Your task to perform on an android device: What is the news today? Image 0: 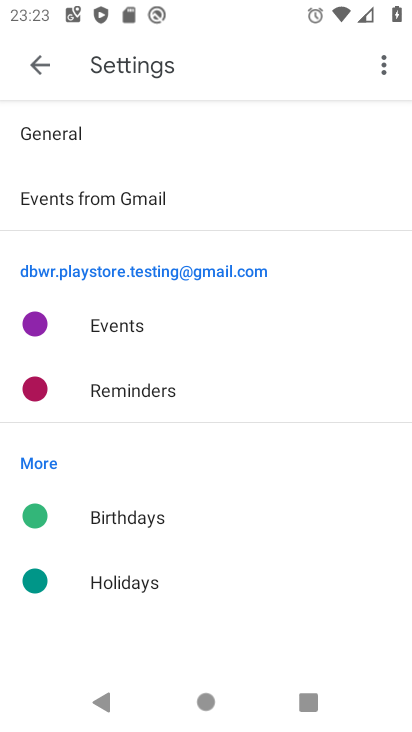
Step 0: press home button
Your task to perform on an android device: What is the news today? Image 1: 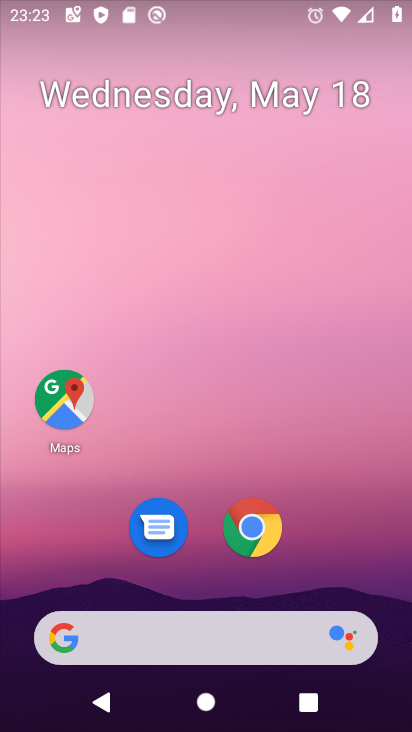
Step 1: click (234, 621)
Your task to perform on an android device: What is the news today? Image 2: 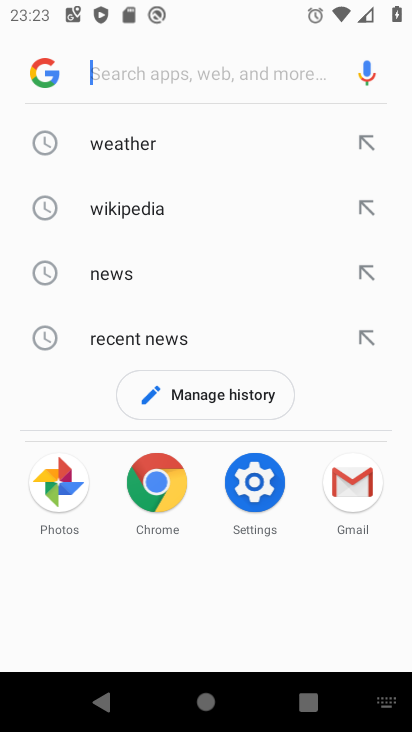
Step 2: click (189, 146)
Your task to perform on an android device: What is the news today? Image 3: 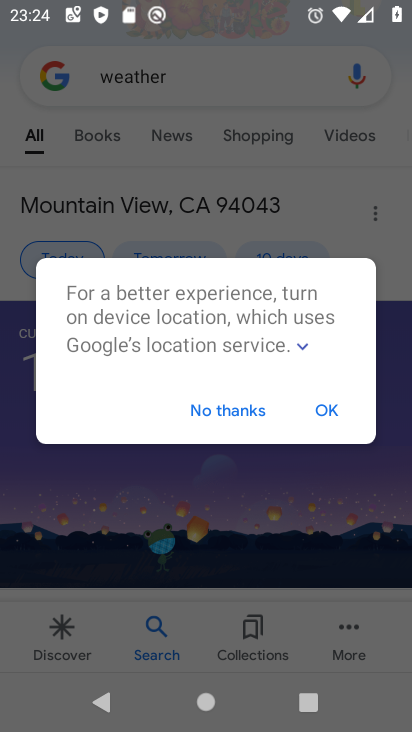
Step 3: task complete